Your task to perform on an android device: Go to internet settings Image 0: 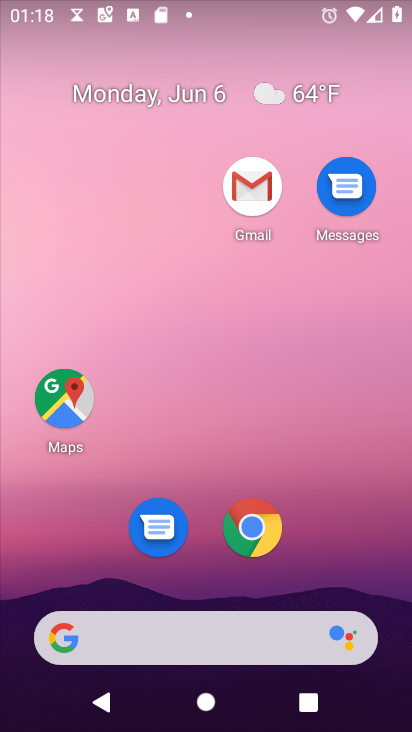
Step 0: drag from (355, 564) to (311, 82)
Your task to perform on an android device: Go to internet settings Image 1: 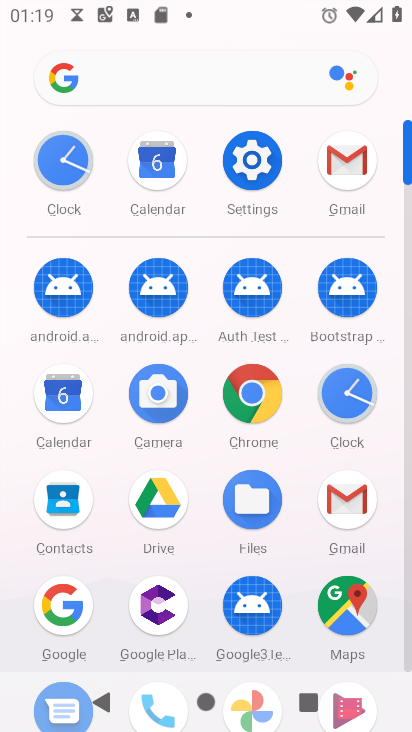
Step 1: click (259, 168)
Your task to perform on an android device: Go to internet settings Image 2: 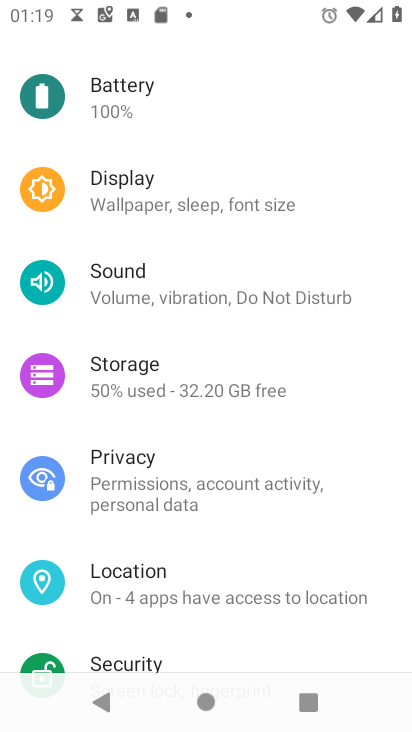
Step 2: drag from (260, 132) to (270, 461)
Your task to perform on an android device: Go to internet settings Image 3: 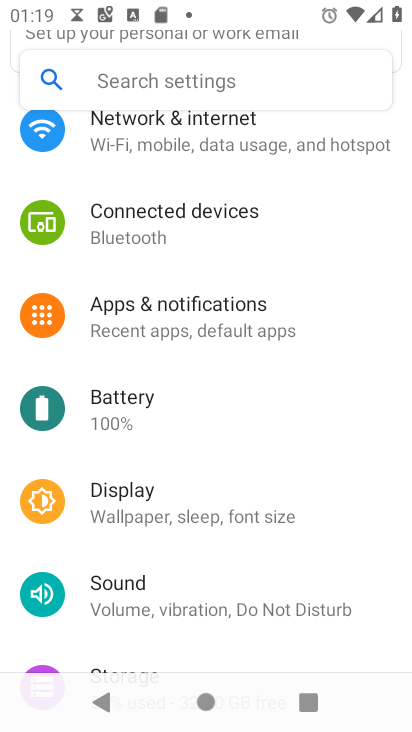
Step 3: drag from (305, 208) to (320, 446)
Your task to perform on an android device: Go to internet settings Image 4: 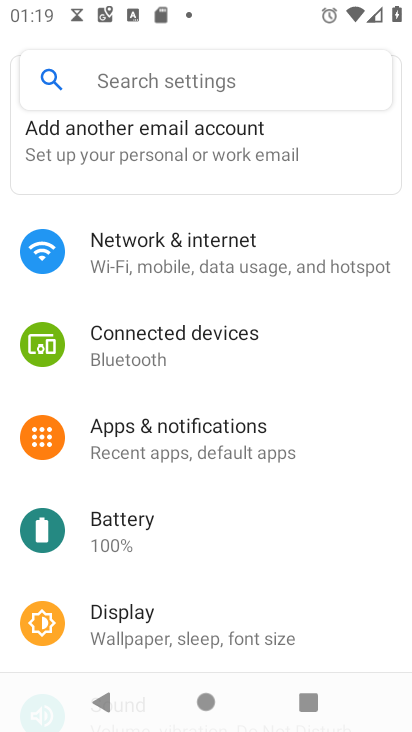
Step 4: click (270, 259)
Your task to perform on an android device: Go to internet settings Image 5: 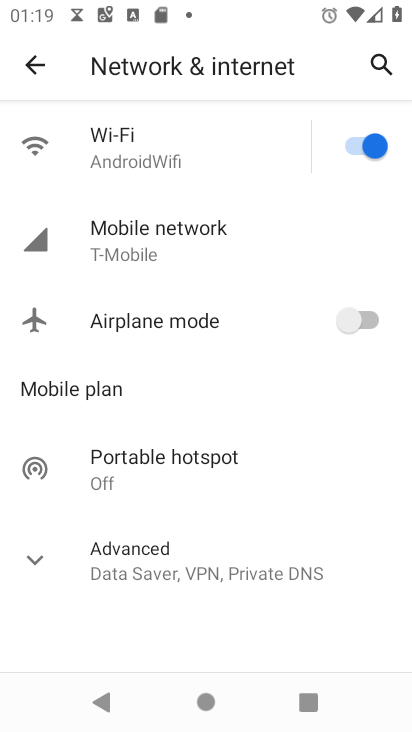
Step 5: task complete